Your task to perform on an android device: Go to Yahoo.com Image 0: 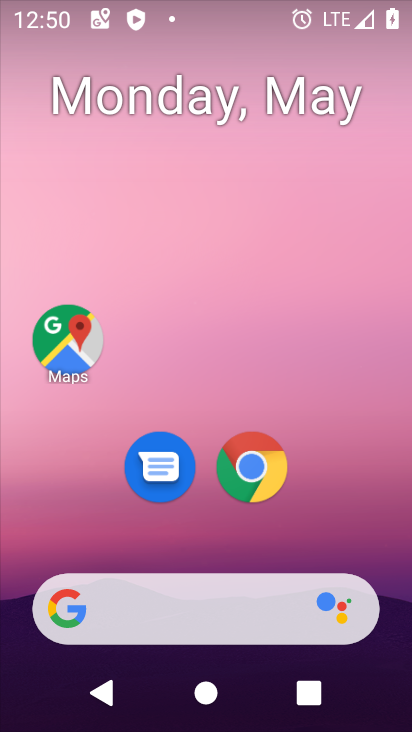
Step 0: click (248, 474)
Your task to perform on an android device: Go to Yahoo.com Image 1: 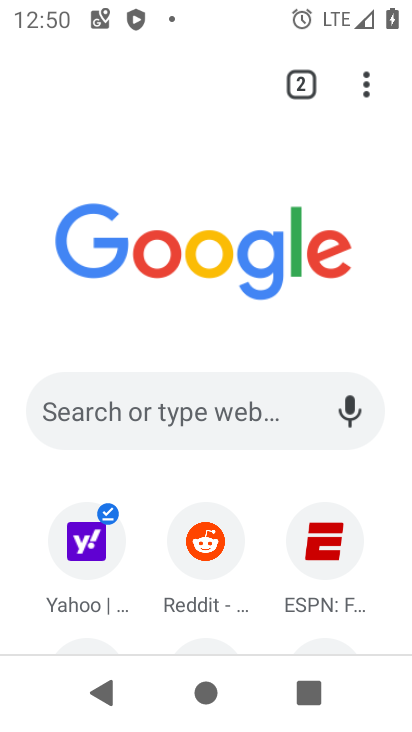
Step 1: click (93, 549)
Your task to perform on an android device: Go to Yahoo.com Image 2: 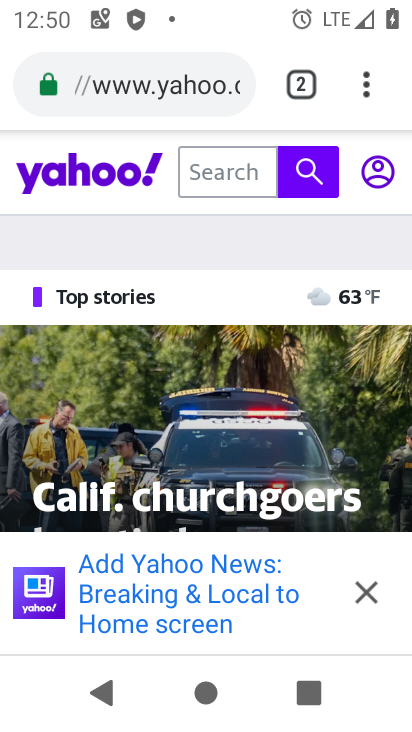
Step 2: task complete